Your task to perform on an android device: Show me productivity apps on the Play Store Image 0: 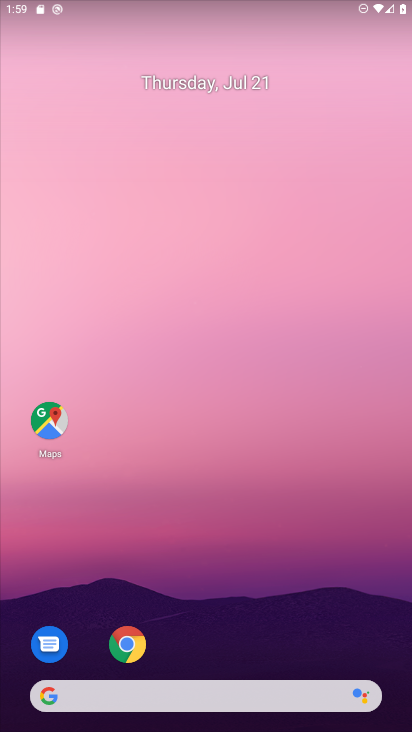
Step 0: drag from (273, 618) to (228, 177)
Your task to perform on an android device: Show me productivity apps on the Play Store Image 1: 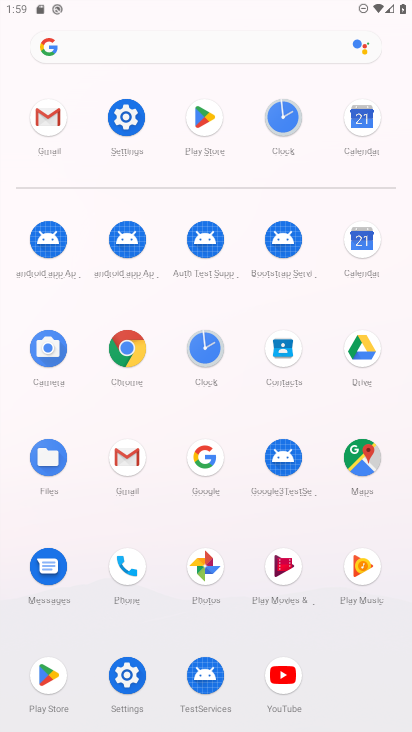
Step 1: click (42, 675)
Your task to perform on an android device: Show me productivity apps on the Play Store Image 2: 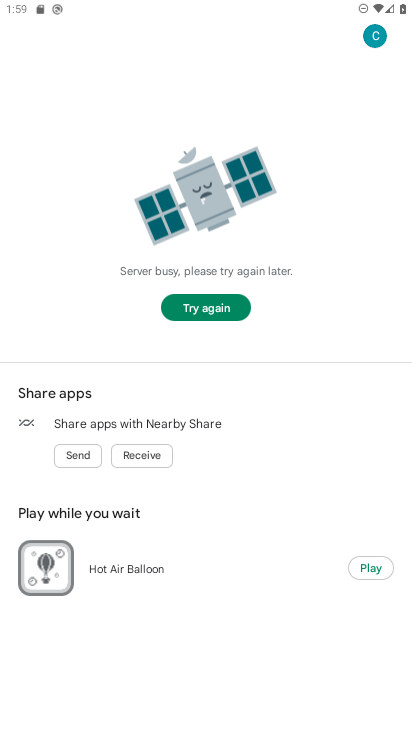
Step 2: click (191, 308)
Your task to perform on an android device: Show me productivity apps on the Play Store Image 3: 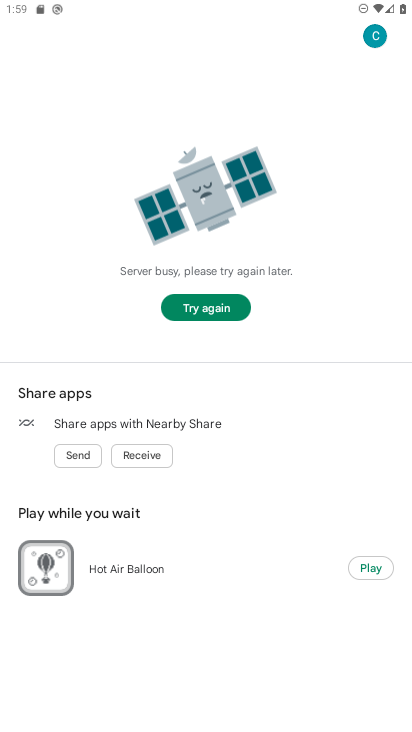
Step 3: task complete